Your task to perform on an android device: turn off priority inbox in the gmail app Image 0: 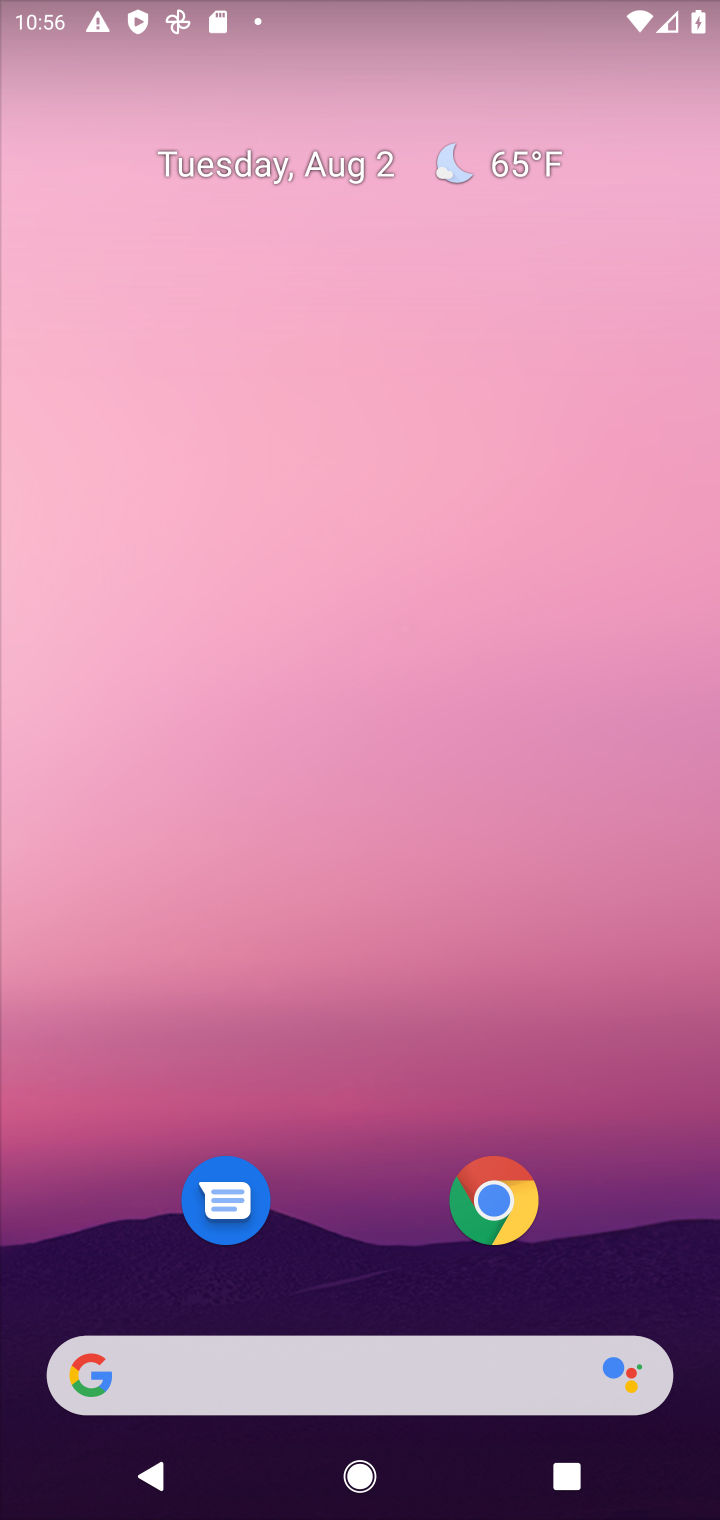
Step 0: drag from (689, 1322) to (538, 578)
Your task to perform on an android device: turn off priority inbox in the gmail app Image 1: 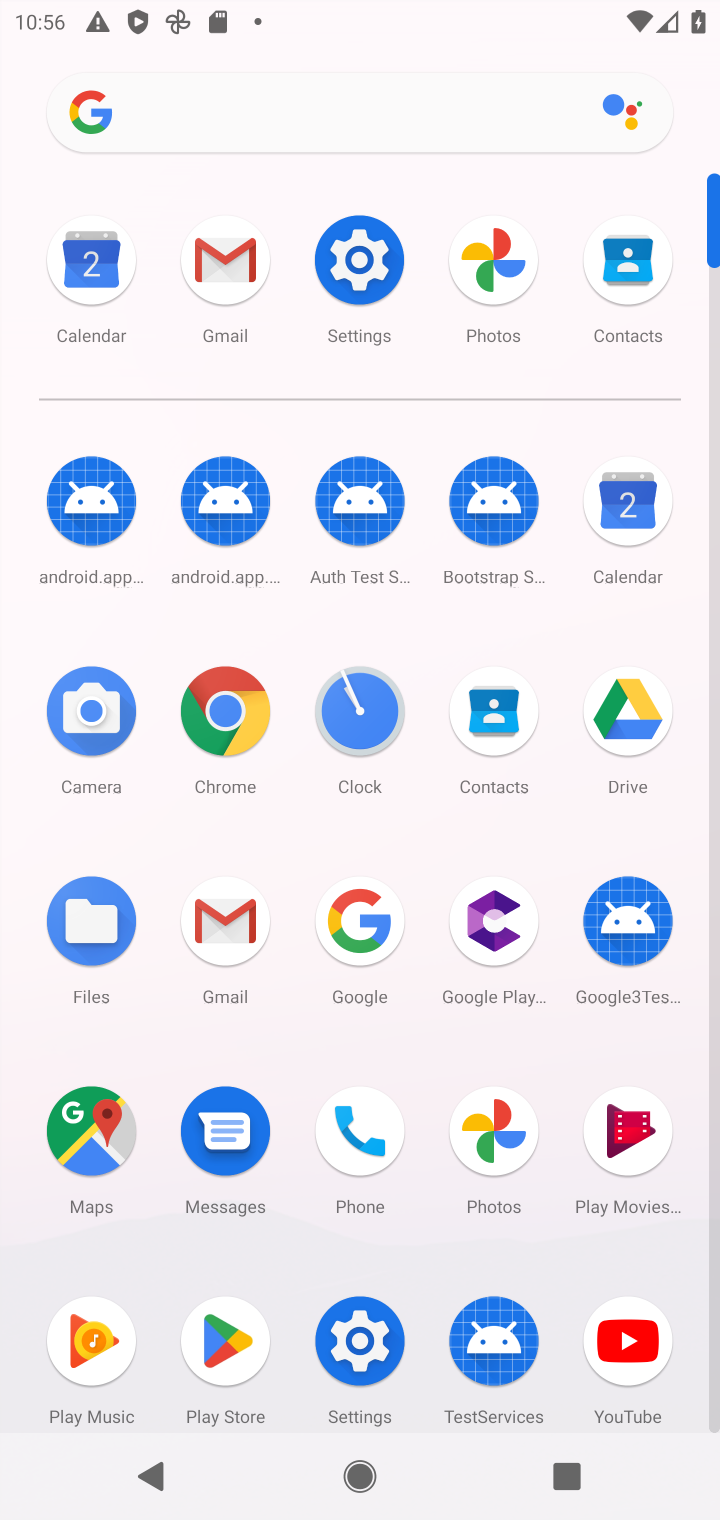
Step 1: click (227, 927)
Your task to perform on an android device: turn off priority inbox in the gmail app Image 2: 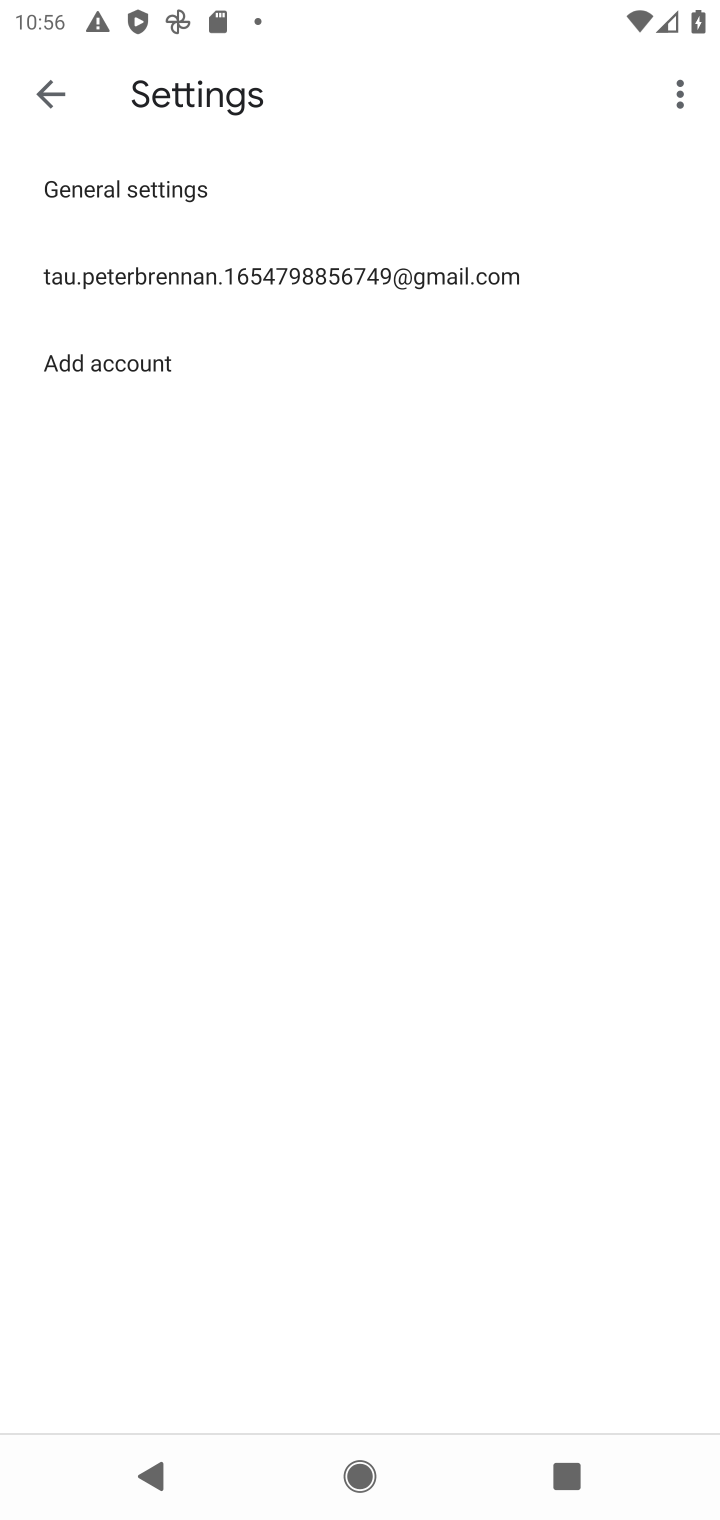
Step 2: click (172, 273)
Your task to perform on an android device: turn off priority inbox in the gmail app Image 3: 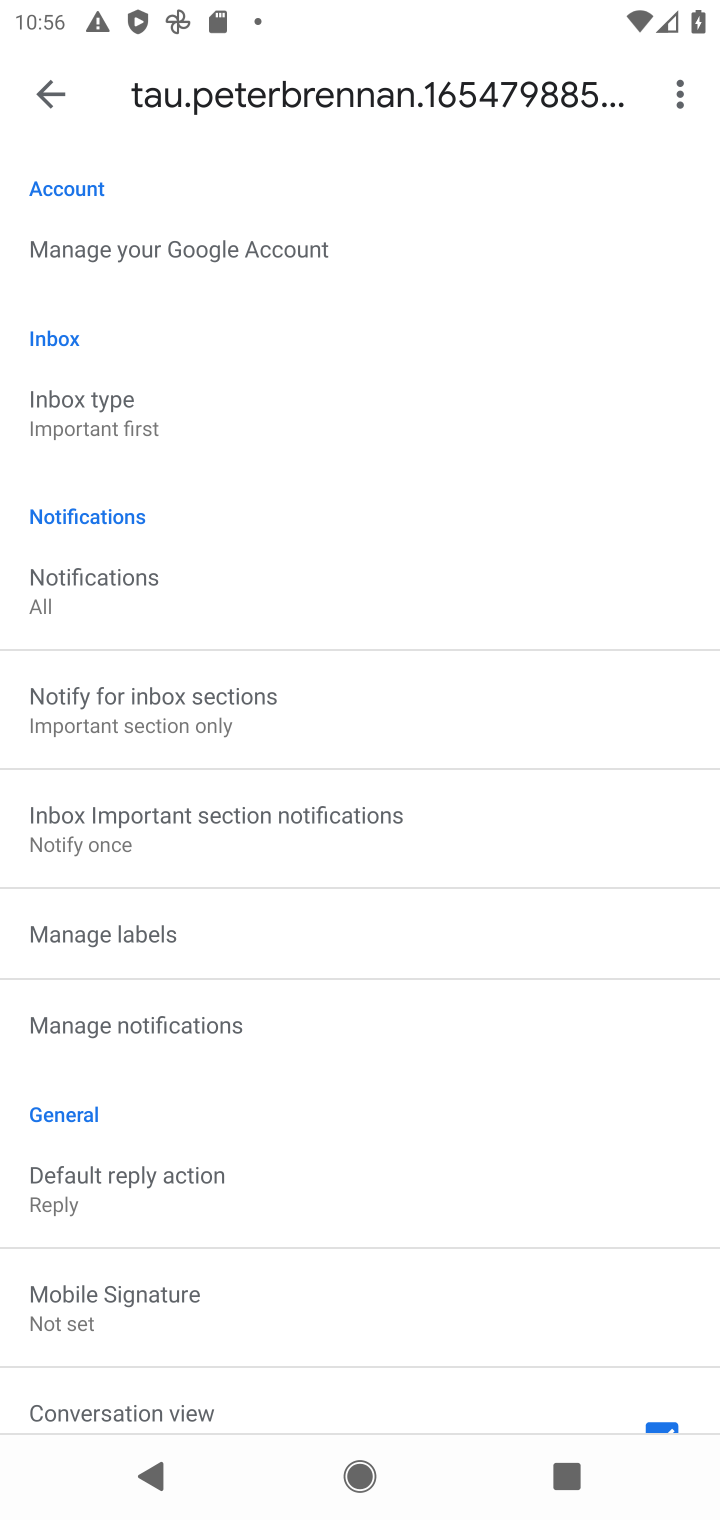
Step 3: click (77, 411)
Your task to perform on an android device: turn off priority inbox in the gmail app Image 4: 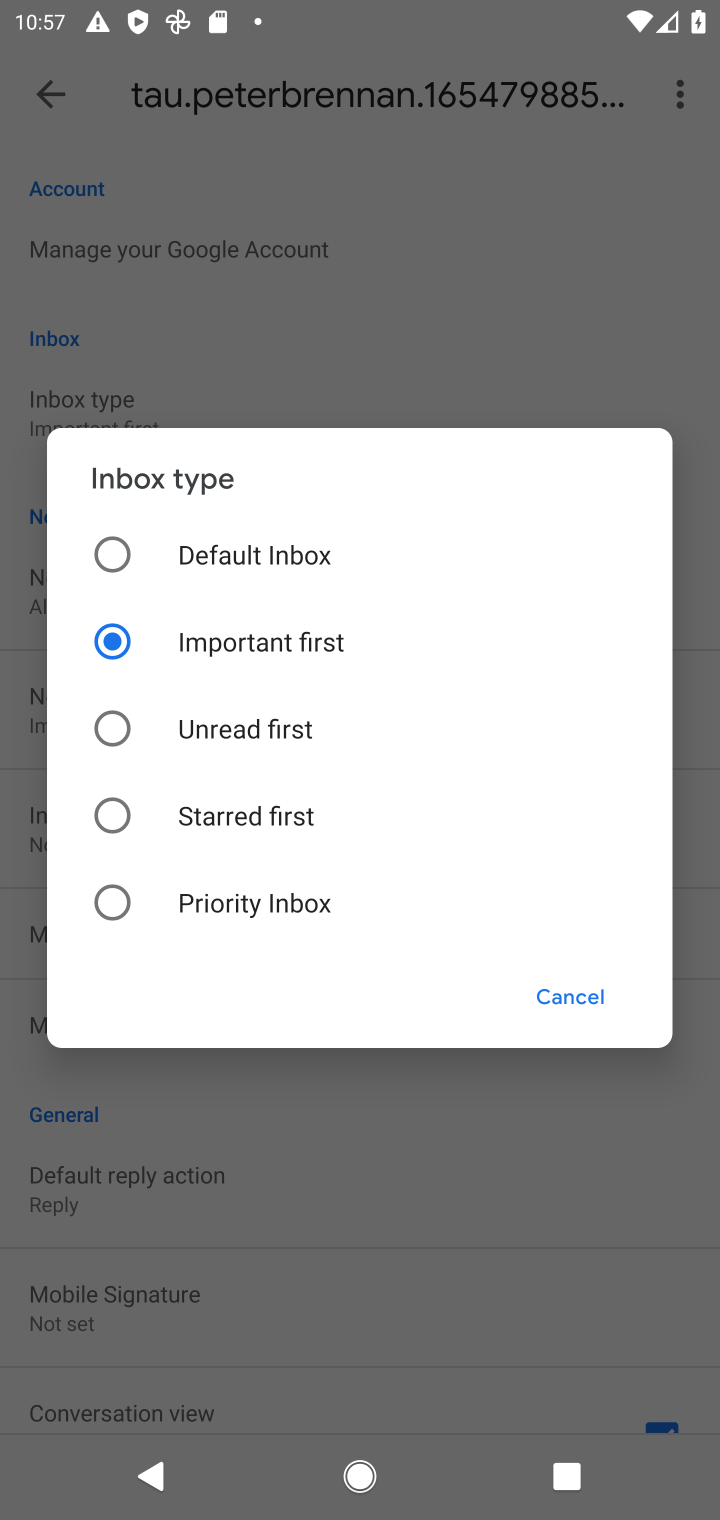
Step 4: task complete